Your task to perform on an android device: turn off notifications in google photos Image 0: 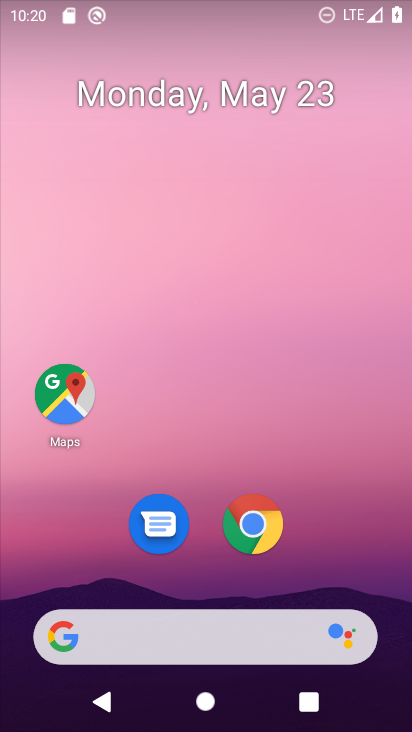
Step 0: drag from (229, 482) to (258, 71)
Your task to perform on an android device: turn off notifications in google photos Image 1: 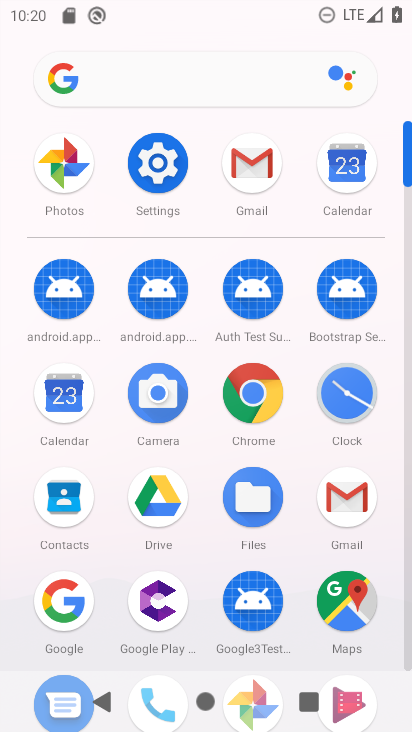
Step 1: click (60, 165)
Your task to perform on an android device: turn off notifications in google photos Image 2: 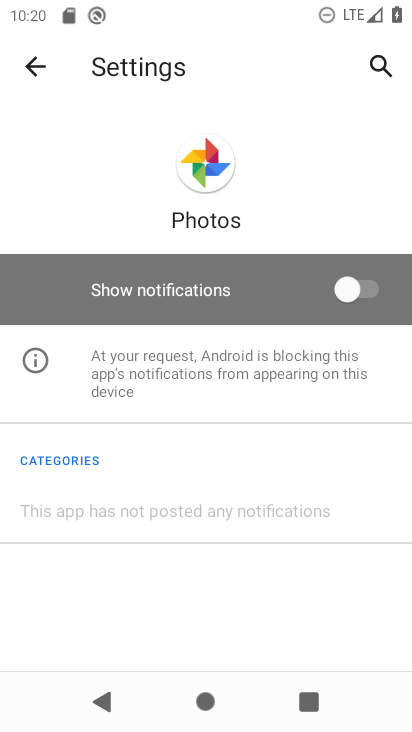
Step 2: click (357, 278)
Your task to perform on an android device: turn off notifications in google photos Image 3: 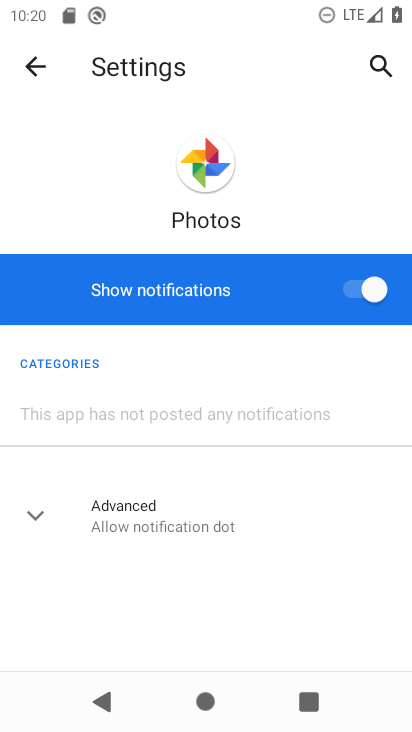
Step 3: click (359, 284)
Your task to perform on an android device: turn off notifications in google photos Image 4: 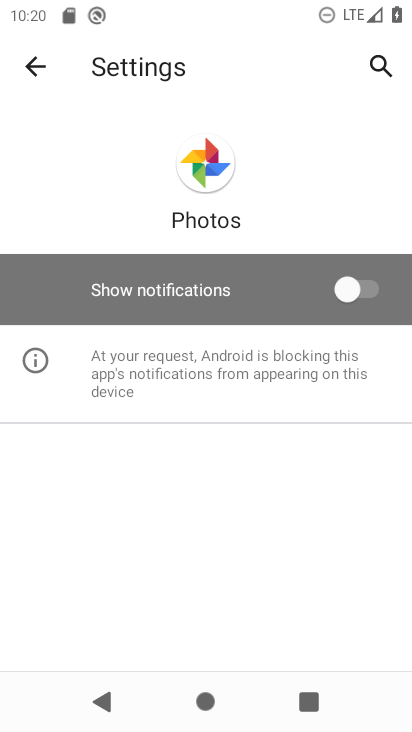
Step 4: task complete